Your task to perform on an android device: Open my contact list Image 0: 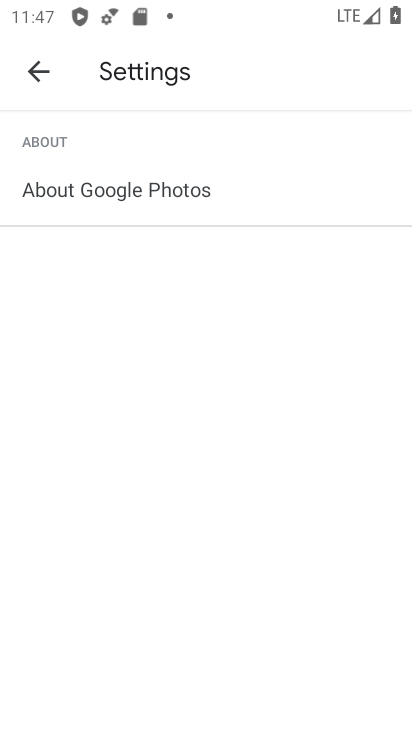
Step 0: press back button
Your task to perform on an android device: Open my contact list Image 1: 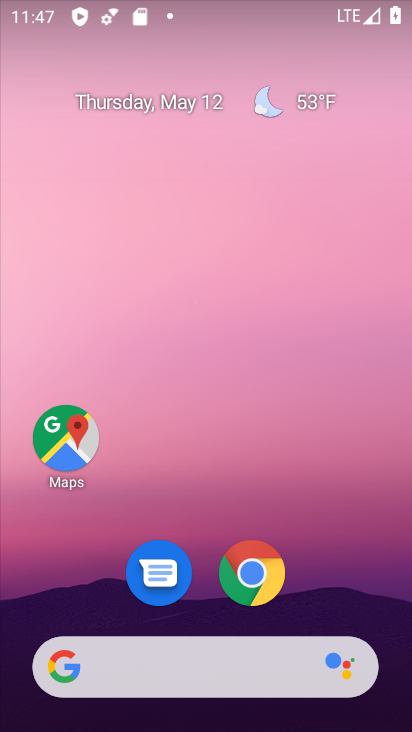
Step 1: drag from (96, 629) to (238, 107)
Your task to perform on an android device: Open my contact list Image 2: 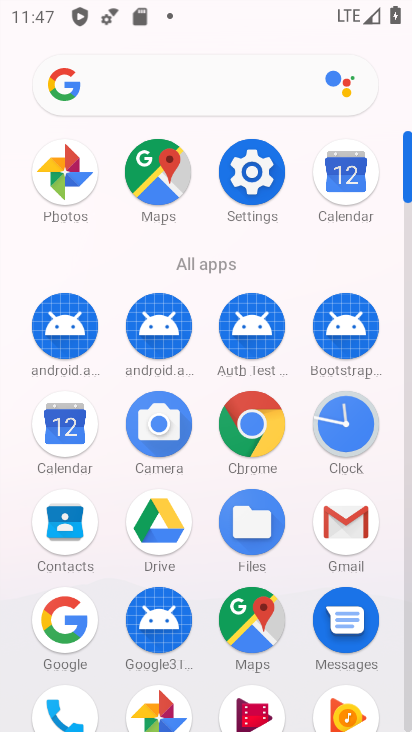
Step 2: click (217, 558)
Your task to perform on an android device: Open my contact list Image 3: 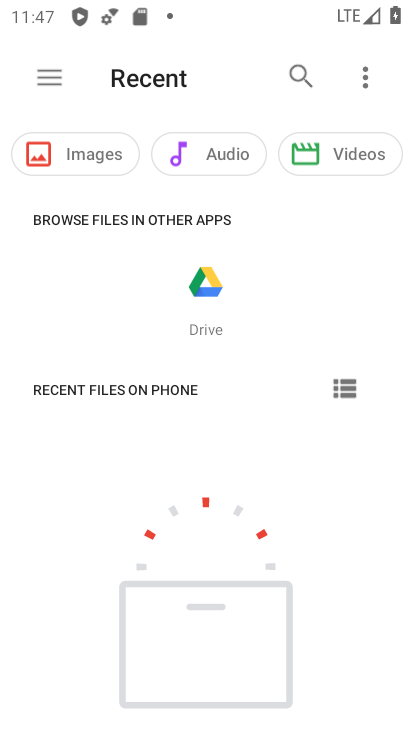
Step 3: press back button
Your task to perform on an android device: Open my contact list Image 4: 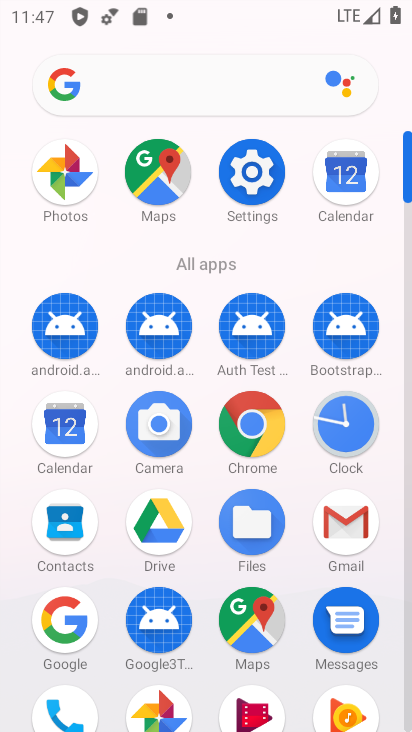
Step 4: click (61, 520)
Your task to perform on an android device: Open my contact list Image 5: 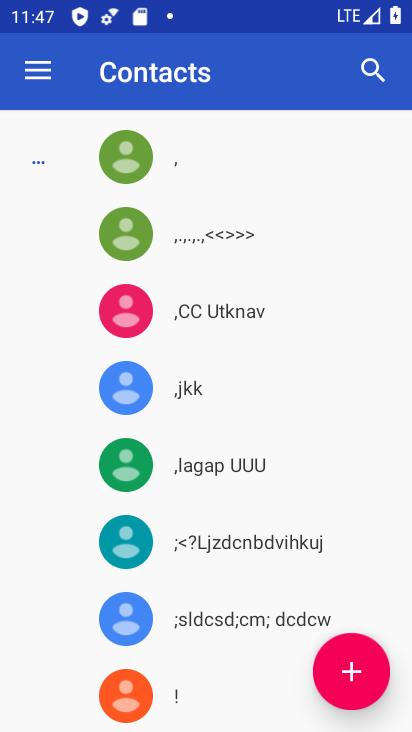
Step 5: task complete